Your task to perform on an android device: Add asus zenbook to the cart on bestbuy.com Image 0: 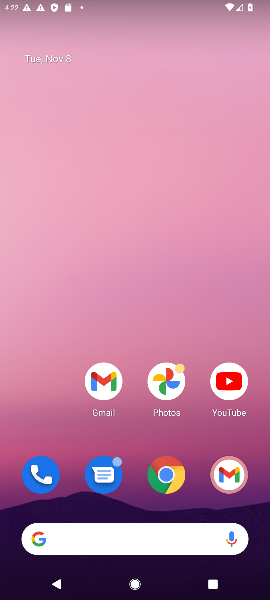
Step 0: drag from (118, 525) to (89, 178)
Your task to perform on an android device: Add asus zenbook to the cart on bestbuy.com Image 1: 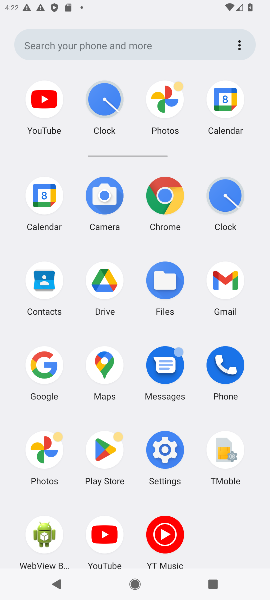
Step 1: click (48, 366)
Your task to perform on an android device: Add asus zenbook to the cart on bestbuy.com Image 2: 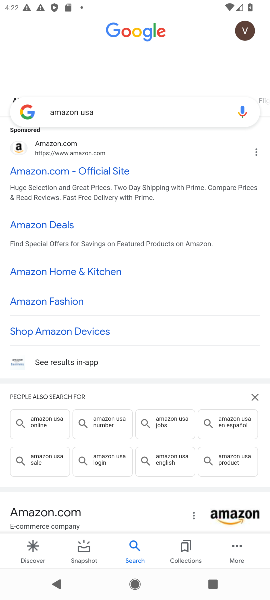
Step 2: click (116, 109)
Your task to perform on an android device: Add asus zenbook to the cart on bestbuy.com Image 3: 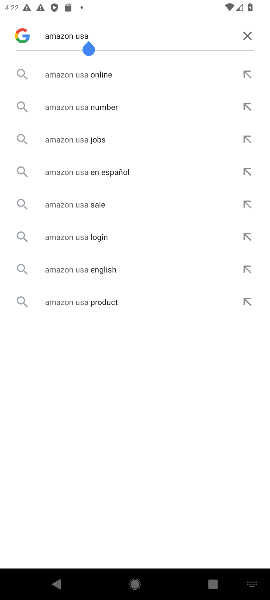
Step 3: click (249, 34)
Your task to perform on an android device: Add asus zenbook to the cart on bestbuy.com Image 4: 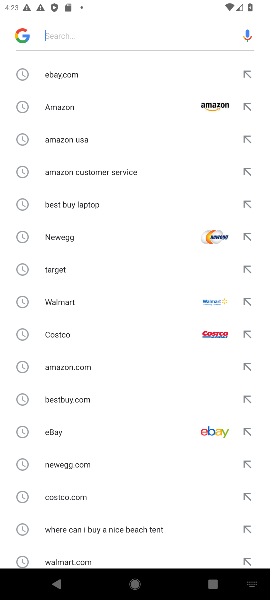
Step 4: click (75, 34)
Your task to perform on an android device: Add asus zenbook to the cart on bestbuy.com Image 5: 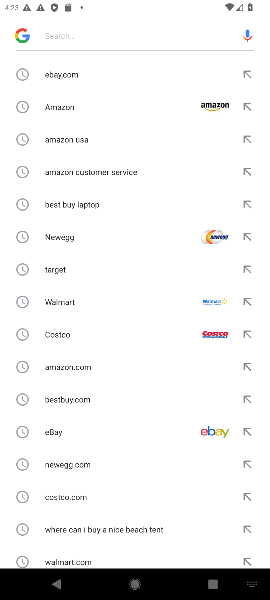
Step 5: type "bestbuy "
Your task to perform on an android device: Add asus zenbook to the cart on bestbuy.com Image 6: 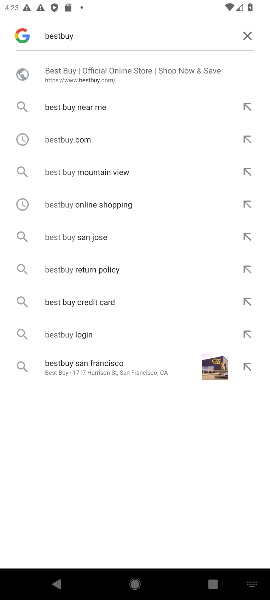
Step 6: click (68, 74)
Your task to perform on an android device: Add asus zenbook to the cart on bestbuy.com Image 7: 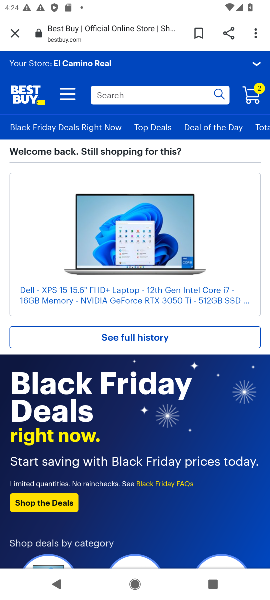
Step 7: click (141, 92)
Your task to perform on an android device: Add asus zenbook to the cart on bestbuy.com Image 8: 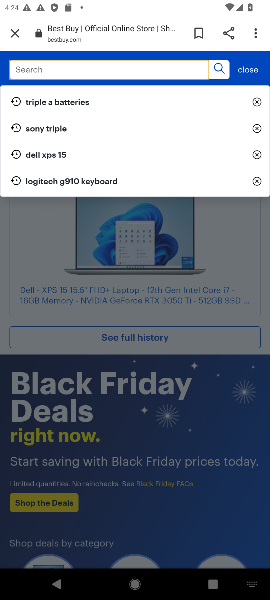
Step 8: type "asus zenbook  "
Your task to perform on an android device: Add asus zenbook to the cart on bestbuy.com Image 9: 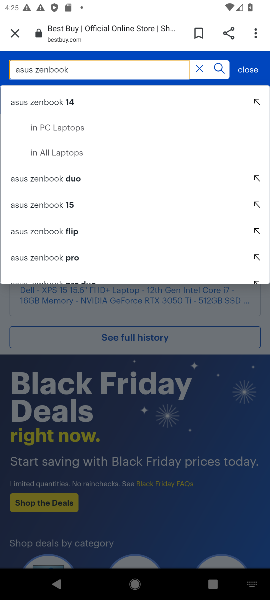
Step 9: click (46, 97)
Your task to perform on an android device: Add asus zenbook to the cart on bestbuy.com Image 10: 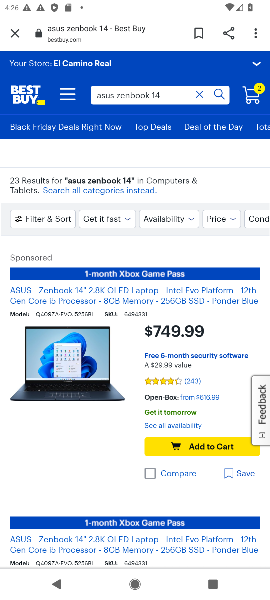
Step 10: click (185, 444)
Your task to perform on an android device: Add asus zenbook to the cart on bestbuy.com Image 11: 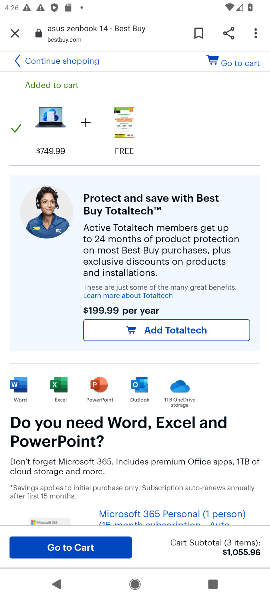
Step 11: task complete